Your task to perform on an android device: add a contact Image 0: 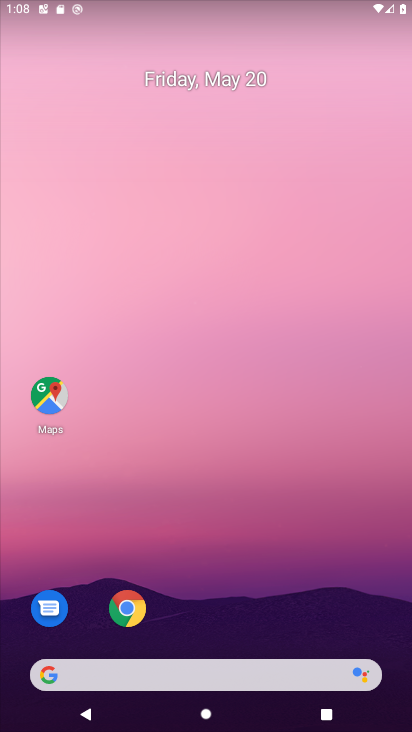
Step 0: drag from (315, 577) to (322, 254)
Your task to perform on an android device: add a contact Image 1: 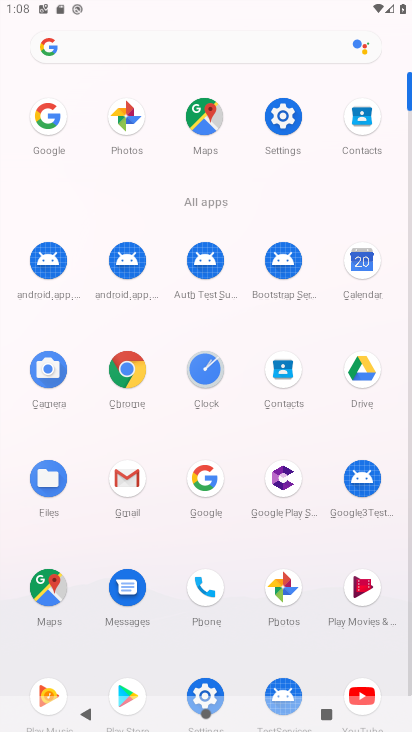
Step 1: click (288, 383)
Your task to perform on an android device: add a contact Image 2: 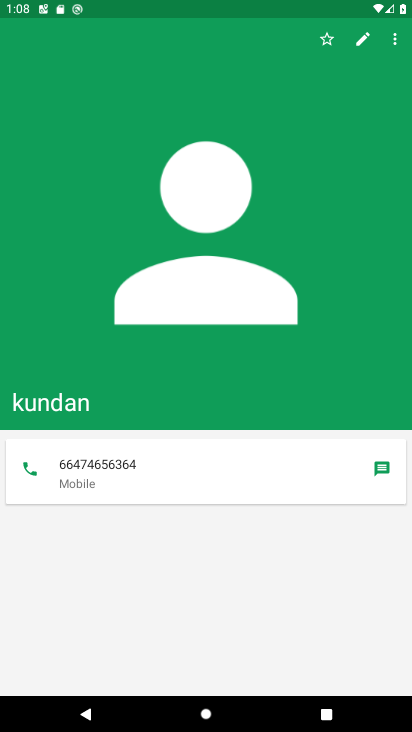
Step 2: press back button
Your task to perform on an android device: add a contact Image 3: 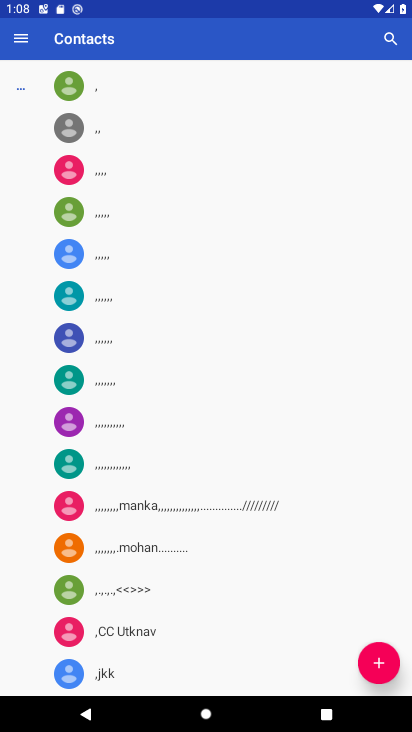
Step 3: click (383, 657)
Your task to perform on an android device: add a contact Image 4: 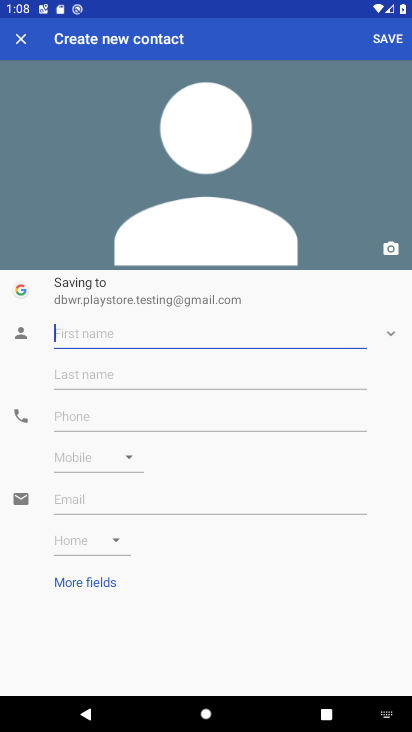
Step 4: type "Sardar ji"
Your task to perform on an android device: add a contact Image 5: 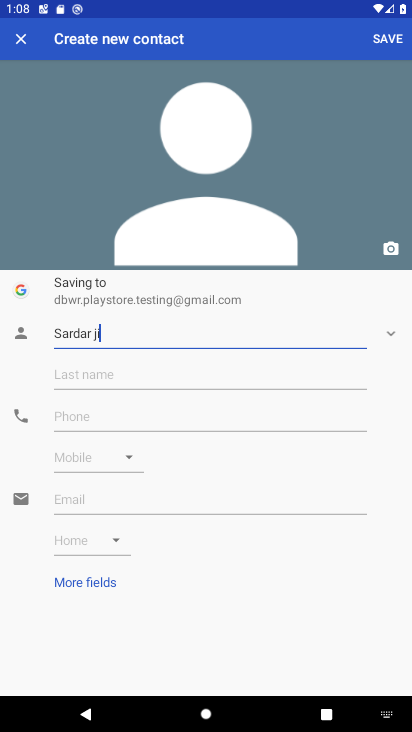
Step 5: click (85, 413)
Your task to perform on an android device: add a contact Image 6: 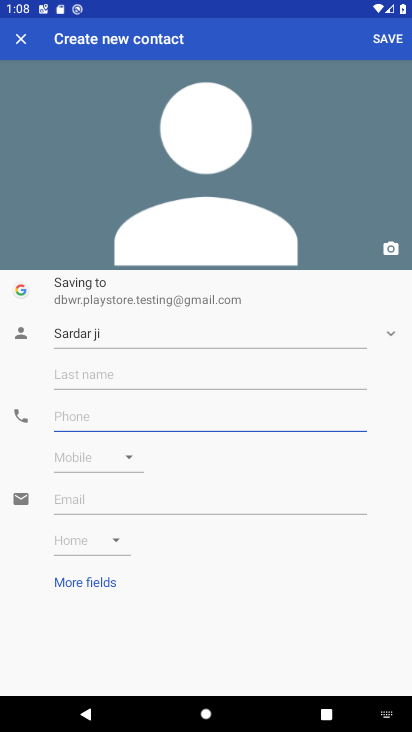
Step 6: type "8887866542"
Your task to perform on an android device: add a contact Image 7: 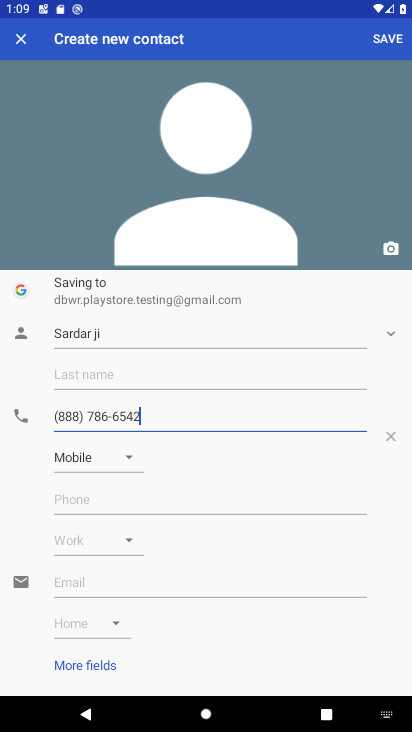
Step 7: click (372, 39)
Your task to perform on an android device: add a contact Image 8: 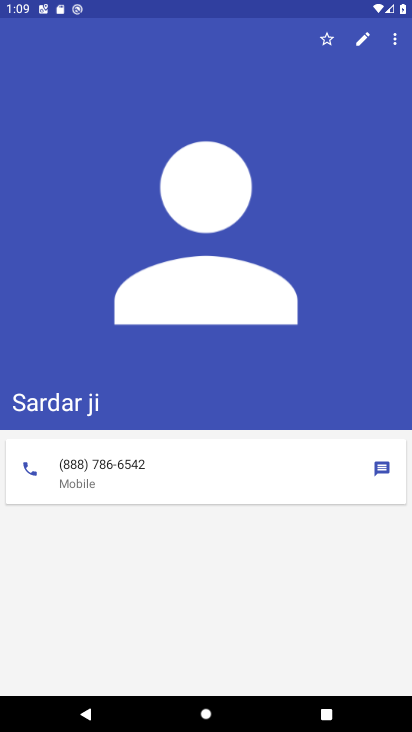
Step 8: task complete